Your task to perform on an android device: Open settings on Google Maps Image 0: 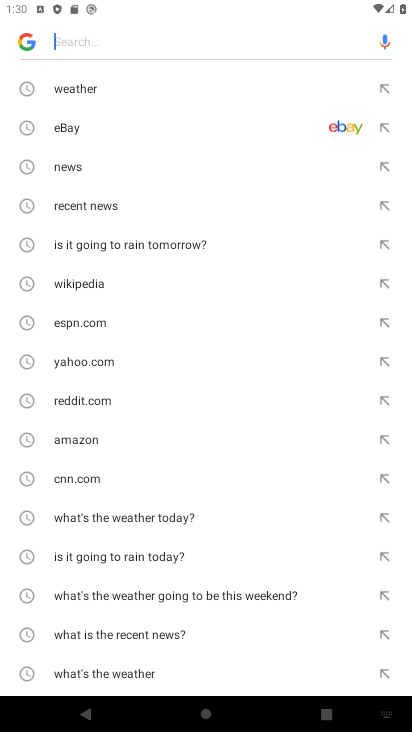
Step 0: press home button
Your task to perform on an android device: Open settings on Google Maps Image 1: 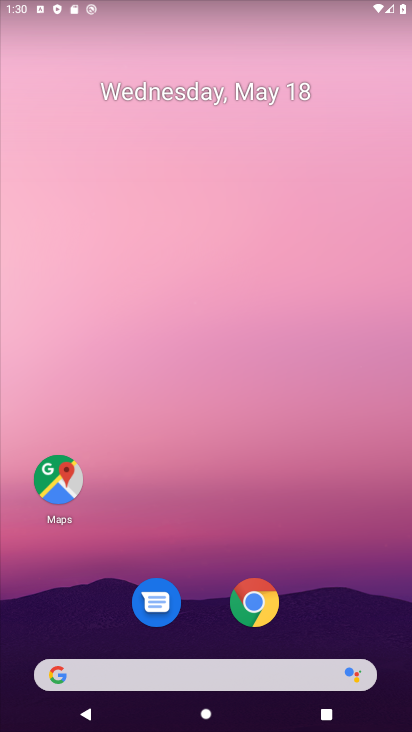
Step 1: click (66, 488)
Your task to perform on an android device: Open settings on Google Maps Image 2: 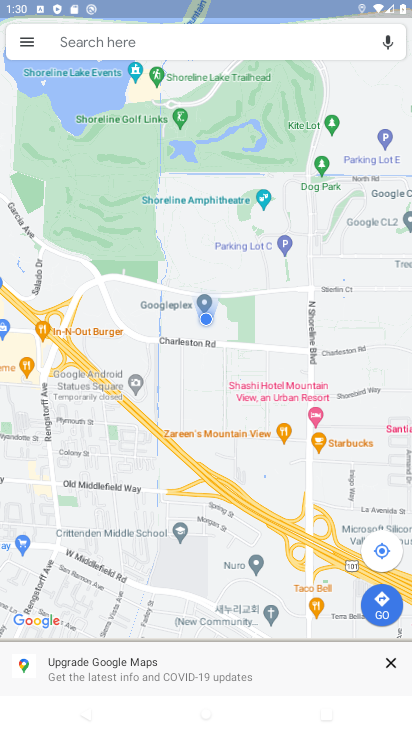
Step 2: click (32, 48)
Your task to perform on an android device: Open settings on Google Maps Image 3: 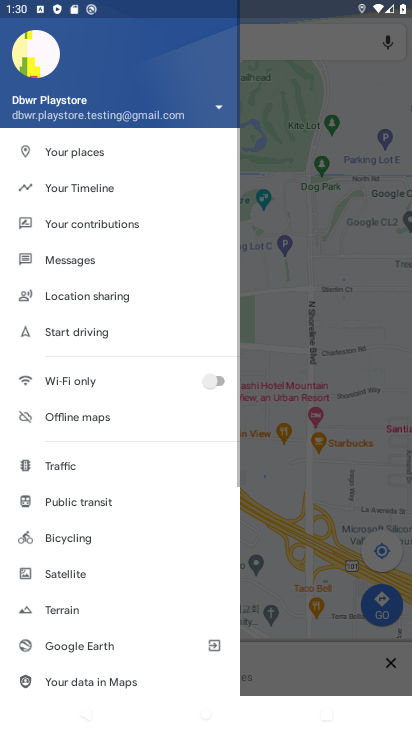
Step 3: drag from (74, 621) to (194, 231)
Your task to perform on an android device: Open settings on Google Maps Image 4: 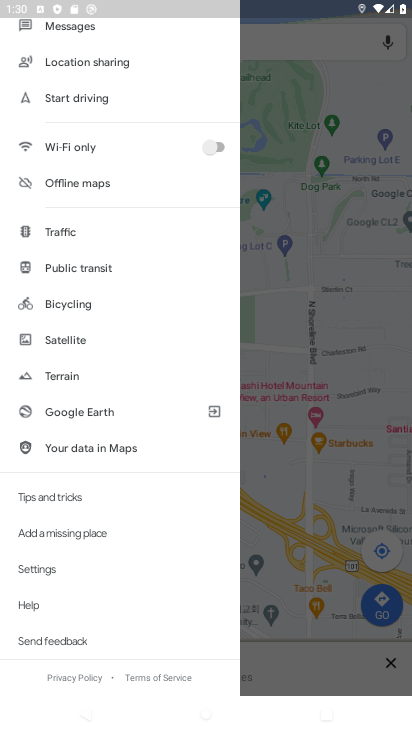
Step 4: click (59, 571)
Your task to perform on an android device: Open settings on Google Maps Image 5: 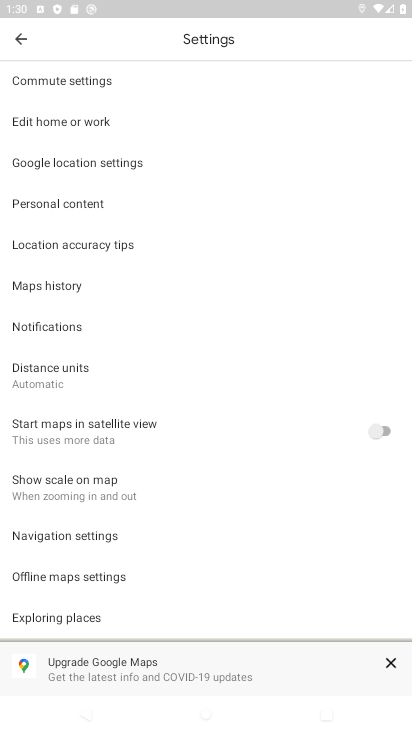
Step 5: task complete